Your task to perform on an android device: turn on the 24-hour format for clock Image 0: 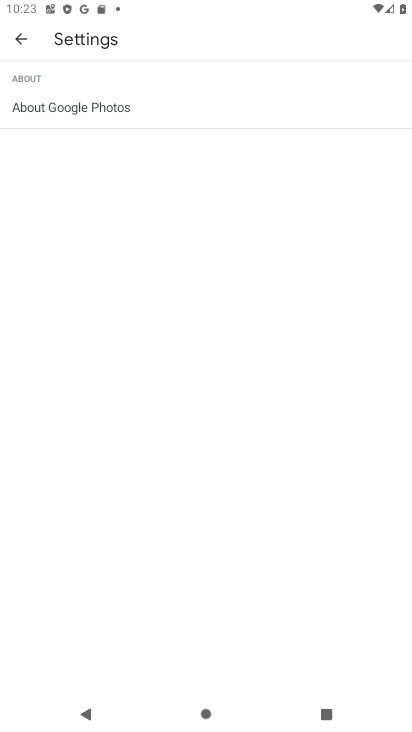
Step 0: press home button
Your task to perform on an android device: turn on the 24-hour format for clock Image 1: 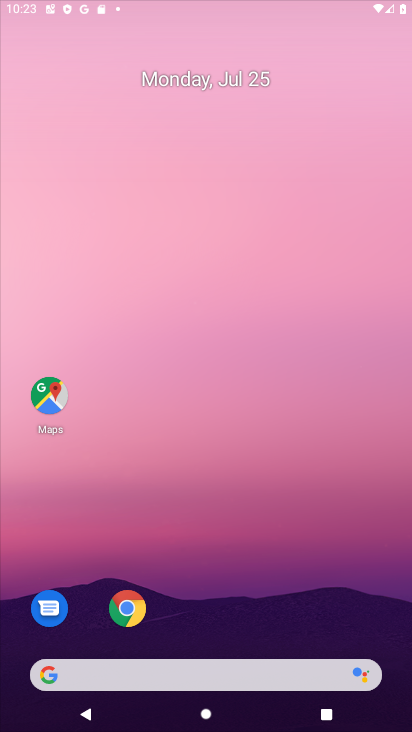
Step 1: drag from (239, 558) to (348, 66)
Your task to perform on an android device: turn on the 24-hour format for clock Image 2: 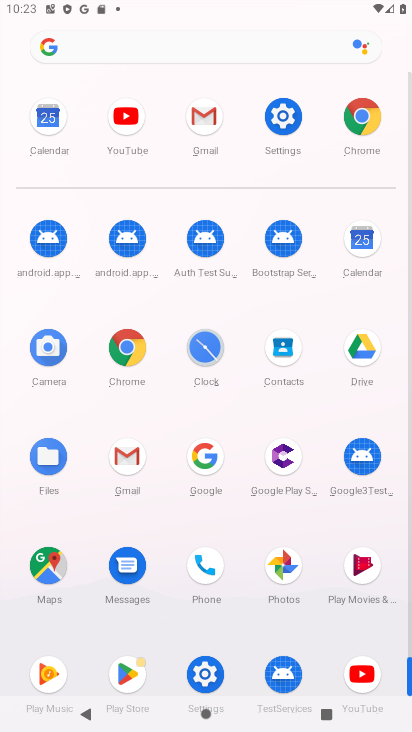
Step 2: click (208, 370)
Your task to perform on an android device: turn on the 24-hour format for clock Image 3: 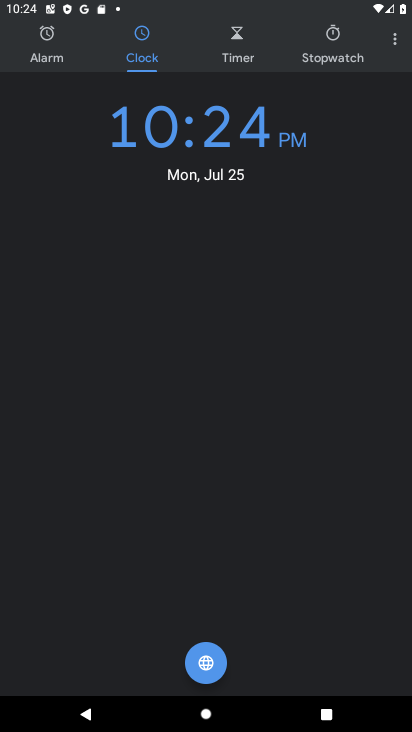
Step 3: click (394, 46)
Your task to perform on an android device: turn on the 24-hour format for clock Image 4: 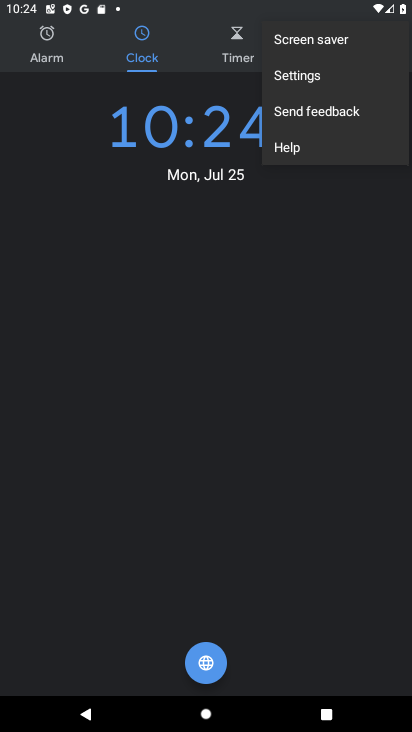
Step 4: click (311, 84)
Your task to perform on an android device: turn on the 24-hour format for clock Image 5: 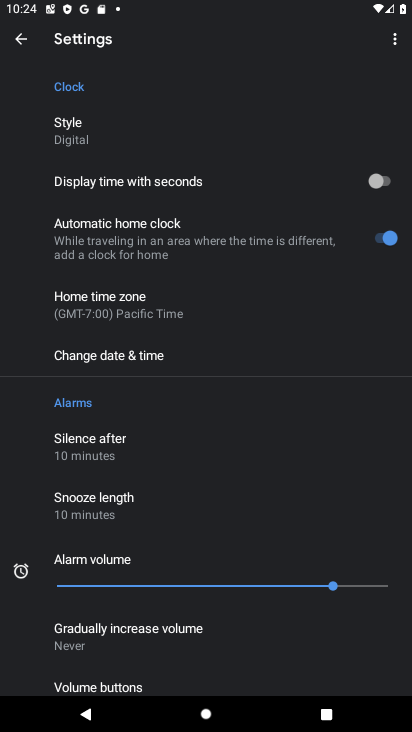
Step 5: click (165, 358)
Your task to perform on an android device: turn on the 24-hour format for clock Image 6: 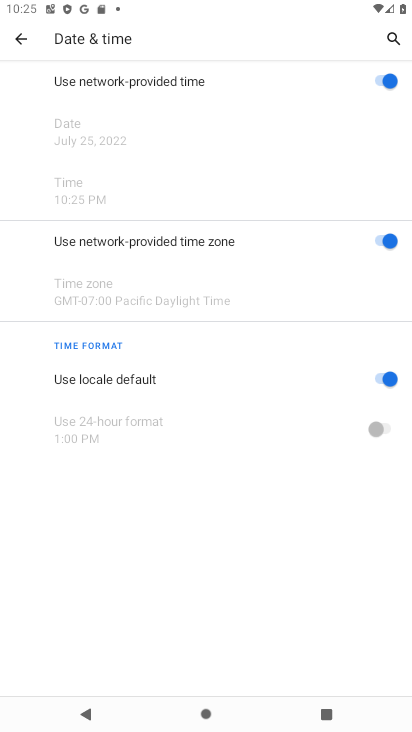
Step 6: click (200, 433)
Your task to perform on an android device: turn on the 24-hour format for clock Image 7: 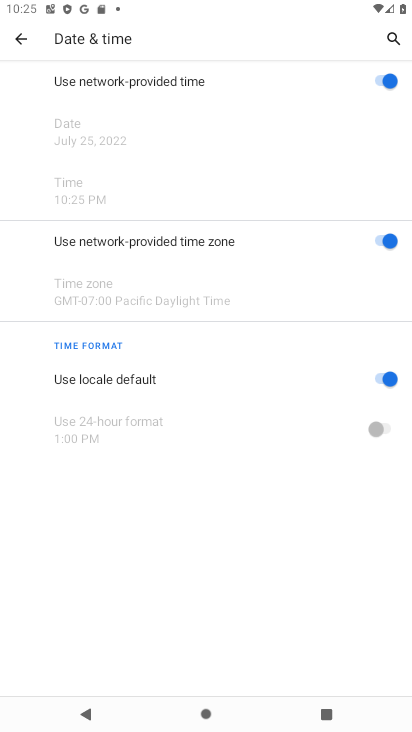
Step 7: task complete